Your task to perform on an android device: Open display settings Image 0: 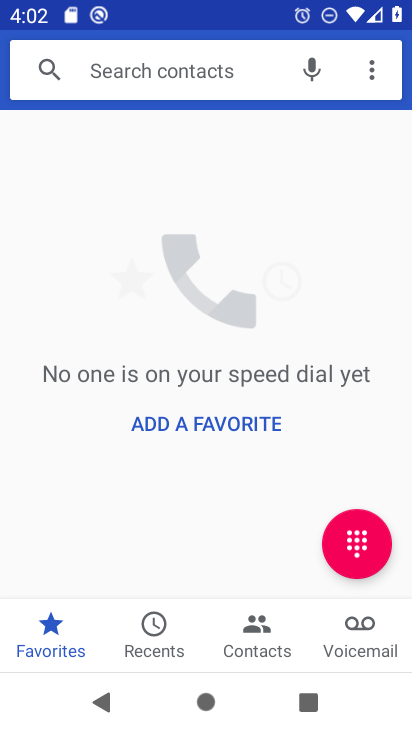
Step 0: press home button
Your task to perform on an android device: Open display settings Image 1: 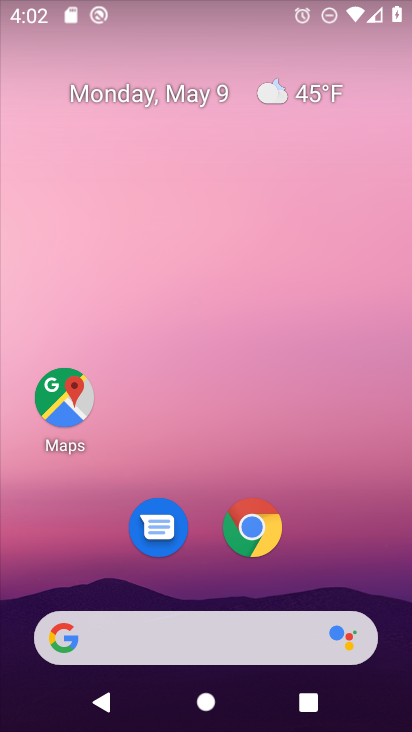
Step 1: drag from (368, 578) to (180, 4)
Your task to perform on an android device: Open display settings Image 2: 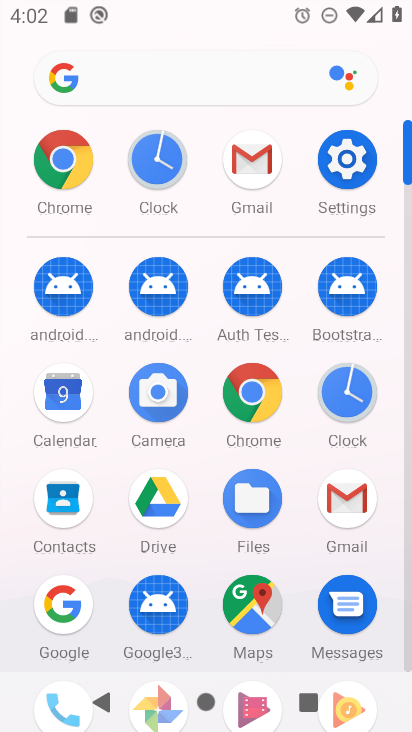
Step 2: click (318, 159)
Your task to perform on an android device: Open display settings Image 3: 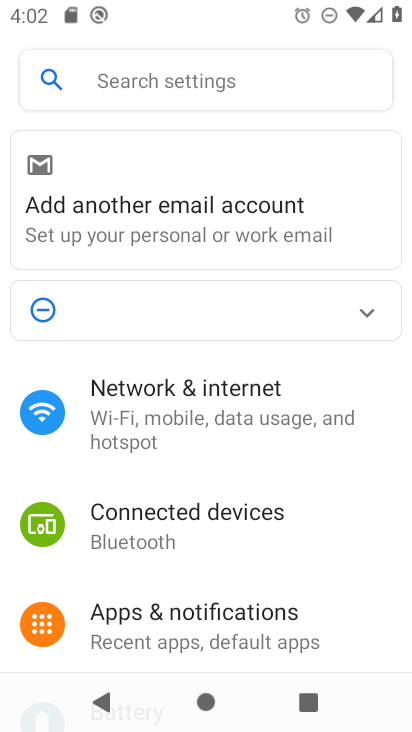
Step 3: drag from (271, 560) to (256, 161)
Your task to perform on an android device: Open display settings Image 4: 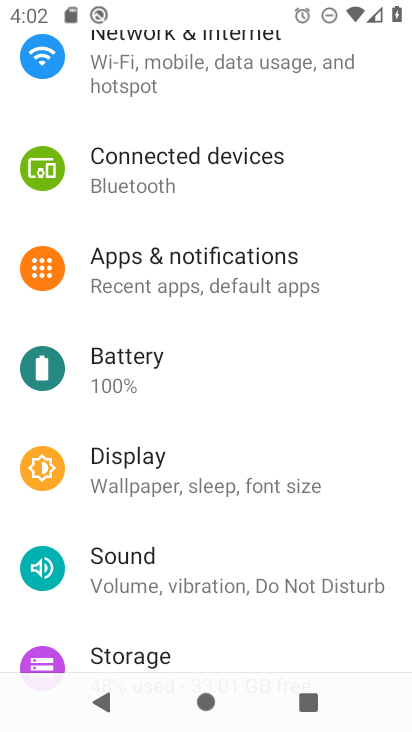
Step 4: click (235, 478)
Your task to perform on an android device: Open display settings Image 5: 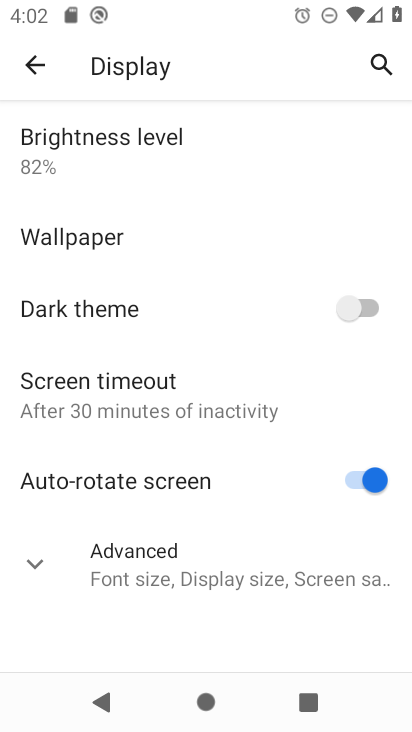
Step 5: task complete